Your task to perform on an android device: Open Google Chrome Image 0: 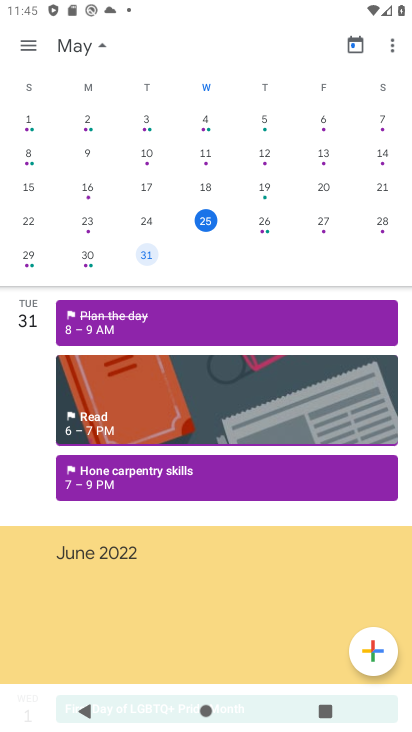
Step 0: press home button
Your task to perform on an android device: Open Google Chrome Image 1: 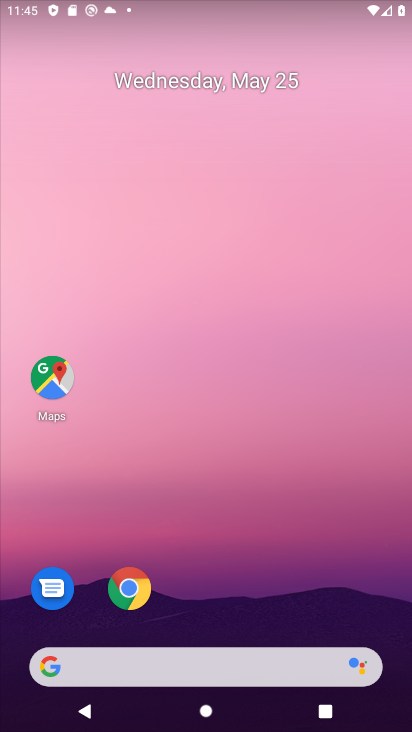
Step 1: click (131, 589)
Your task to perform on an android device: Open Google Chrome Image 2: 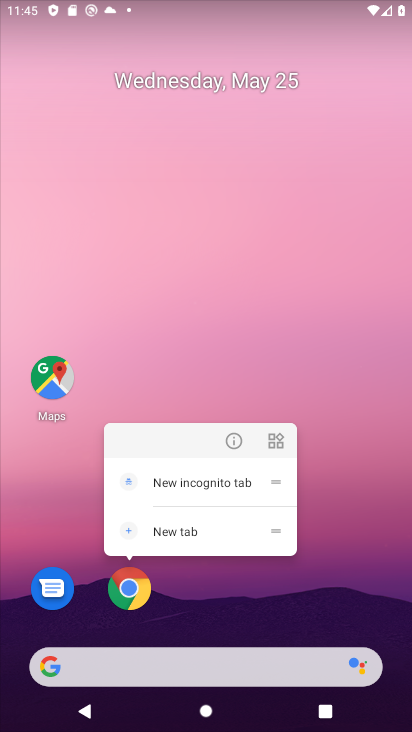
Step 2: click (126, 588)
Your task to perform on an android device: Open Google Chrome Image 3: 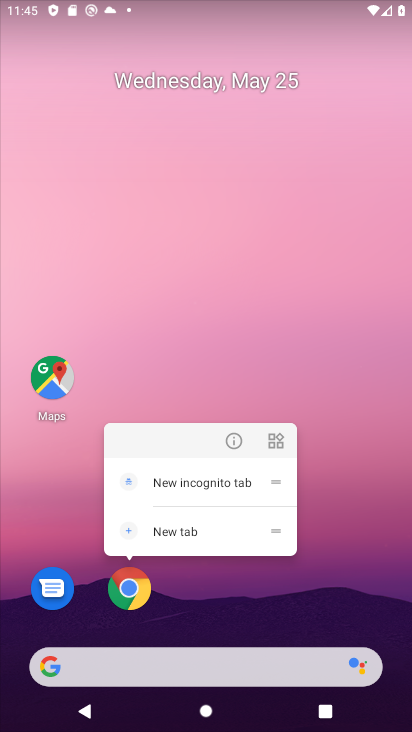
Step 3: click (126, 588)
Your task to perform on an android device: Open Google Chrome Image 4: 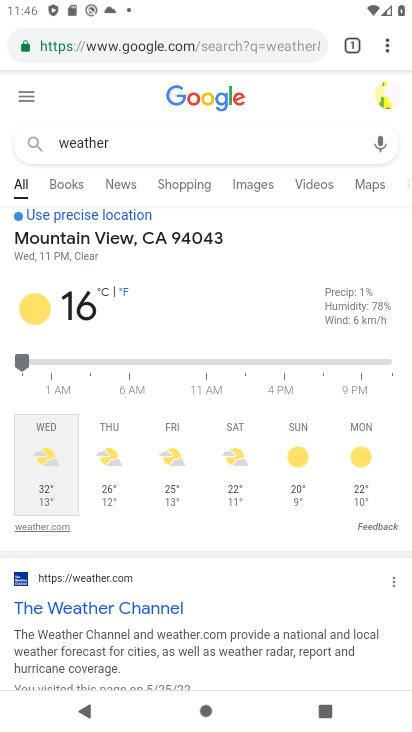
Step 4: task complete